Your task to perform on an android device: Go to ESPN.com Image 0: 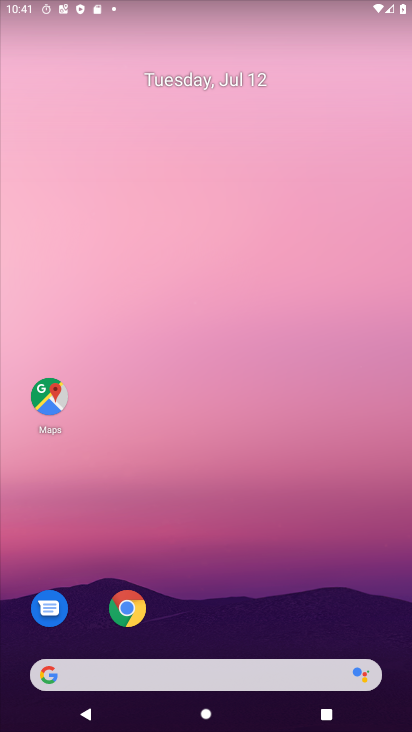
Step 0: click (131, 612)
Your task to perform on an android device: Go to ESPN.com Image 1: 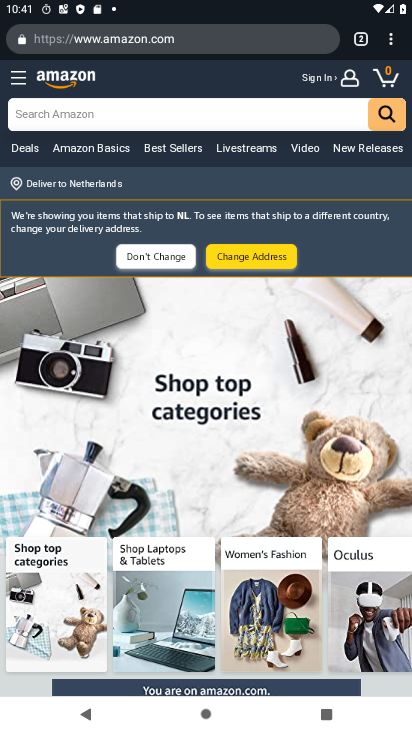
Step 1: click (140, 35)
Your task to perform on an android device: Go to ESPN.com Image 2: 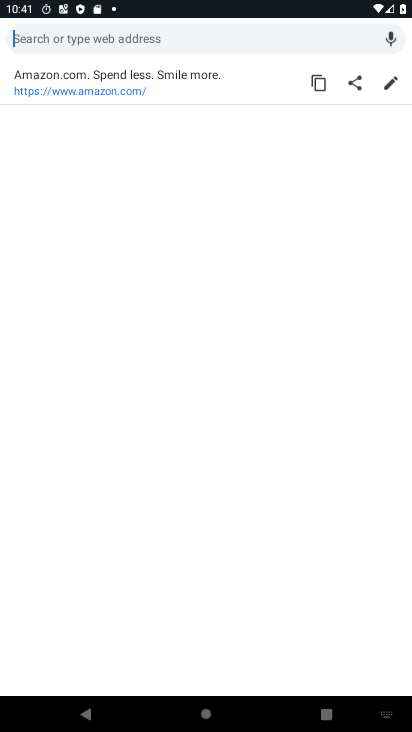
Step 2: type "ESPN.com"
Your task to perform on an android device: Go to ESPN.com Image 3: 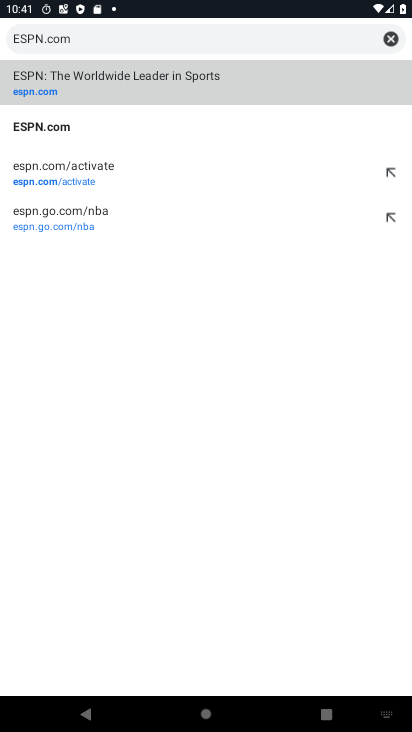
Step 3: click (221, 93)
Your task to perform on an android device: Go to ESPN.com Image 4: 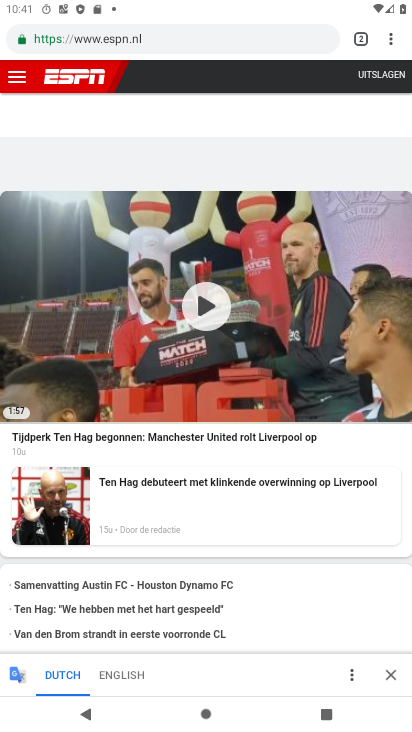
Step 4: task complete